Your task to perform on an android device: turn on priority inbox in the gmail app Image 0: 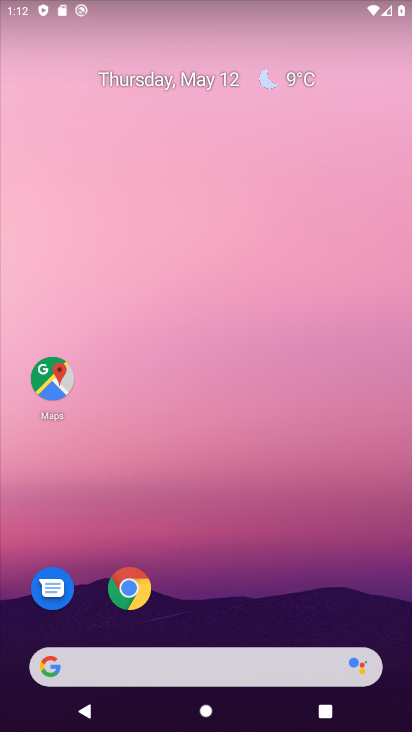
Step 0: drag from (164, 621) to (259, 87)
Your task to perform on an android device: turn on priority inbox in the gmail app Image 1: 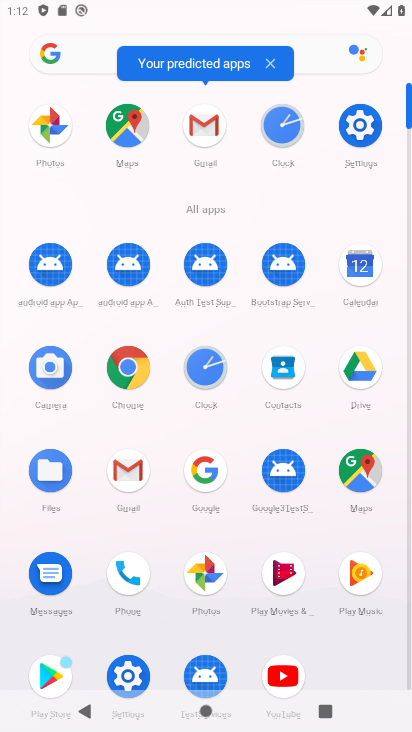
Step 1: click (121, 466)
Your task to perform on an android device: turn on priority inbox in the gmail app Image 2: 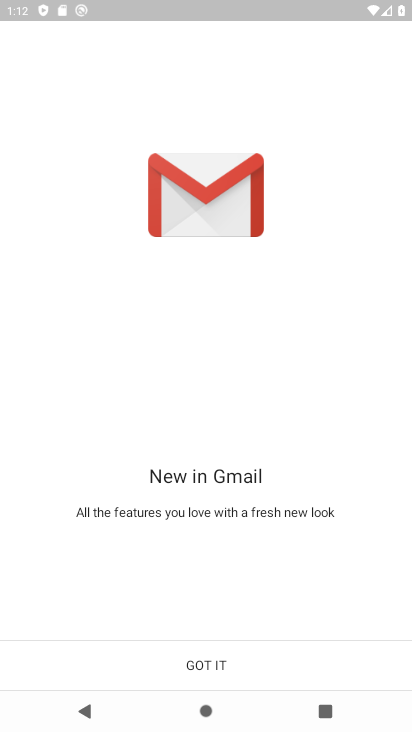
Step 2: click (261, 665)
Your task to perform on an android device: turn on priority inbox in the gmail app Image 3: 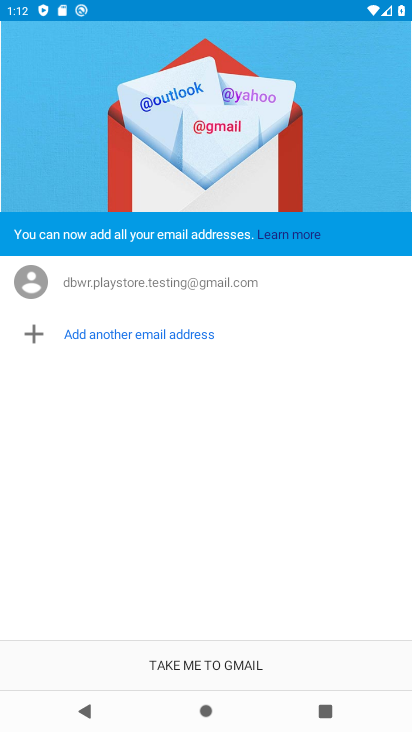
Step 3: click (261, 665)
Your task to perform on an android device: turn on priority inbox in the gmail app Image 4: 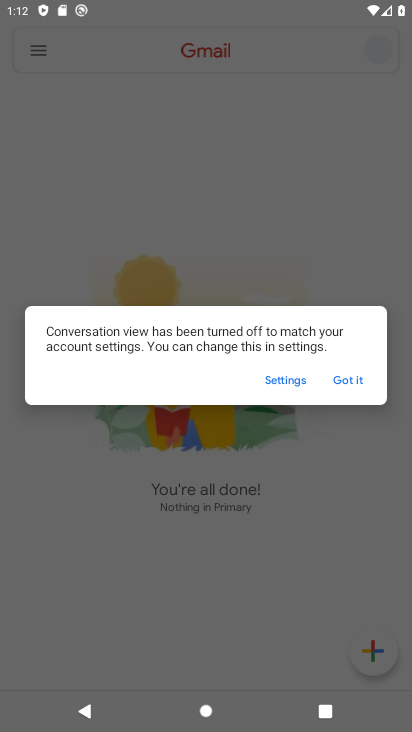
Step 4: click (355, 382)
Your task to perform on an android device: turn on priority inbox in the gmail app Image 5: 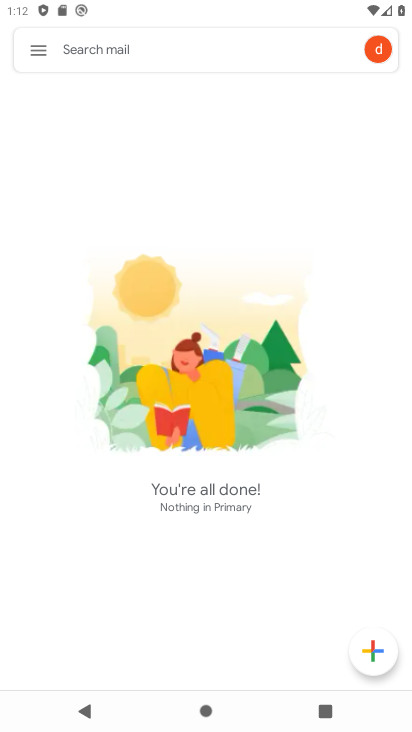
Step 5: click (43, 45)
Your task to perform on an android device: turn on priority inbox in the gmail app Image 6: 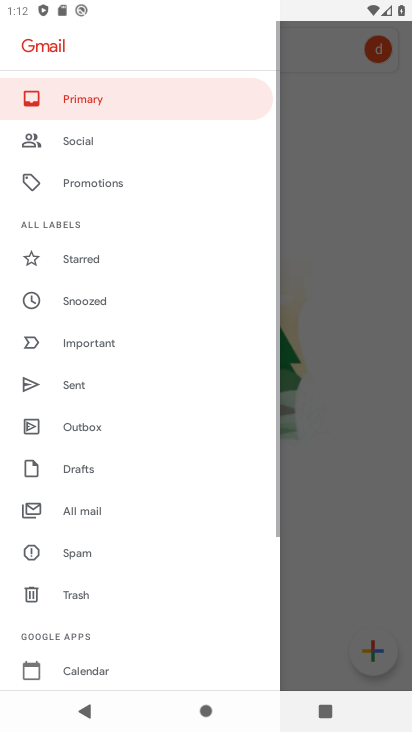
Step 6: drag from (106, 559) to (184, 254)
Your task to perform on an android device: turn on priority inbox in the gmail app Image 7: 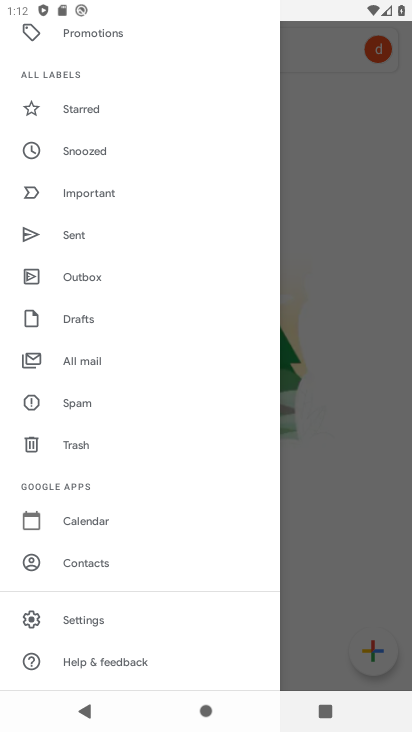
Step 7: click (110, 625)
Your task to perform on an android device: turn on priority inbox in the gmail app Image 8: 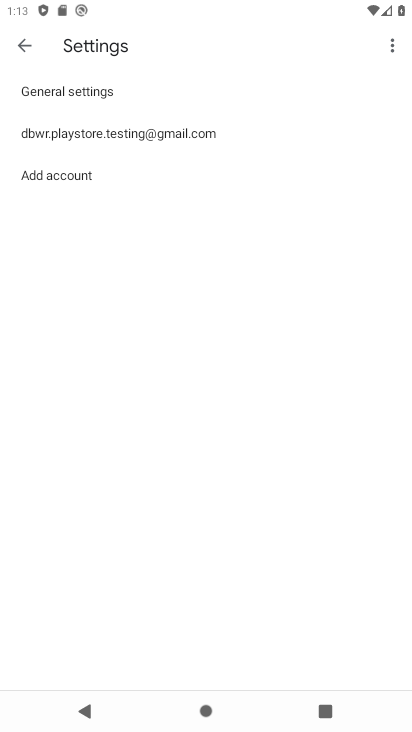
Step 8: click (262, 140)
Your task to perform on an android device: turn on priority inbox in the gmail app Image 9: 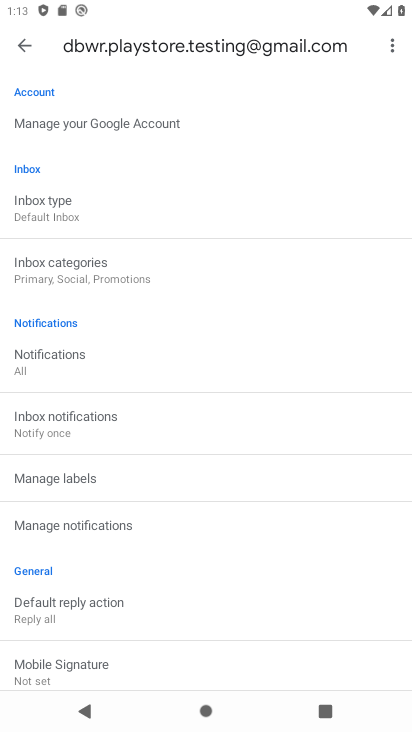
Step 9: click (156, 210)
Your task to perform on an android device: turn on priority inbox in the gmail app Image 10: 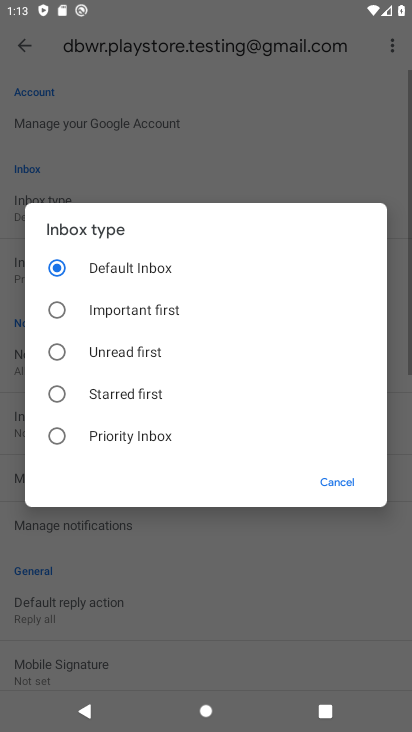
Step 10: click (209, 437)
Your task to perform on an android device: turn on priority inbox in the gmail app Image 11: 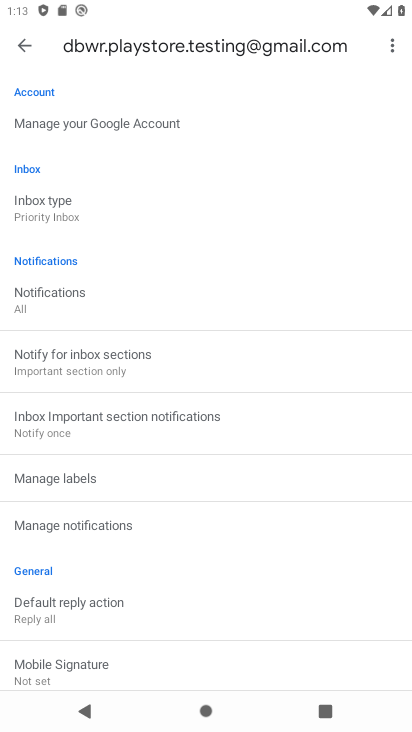
Step 11: task complete